Your task to perform on an android device: Open eBay Image 0: 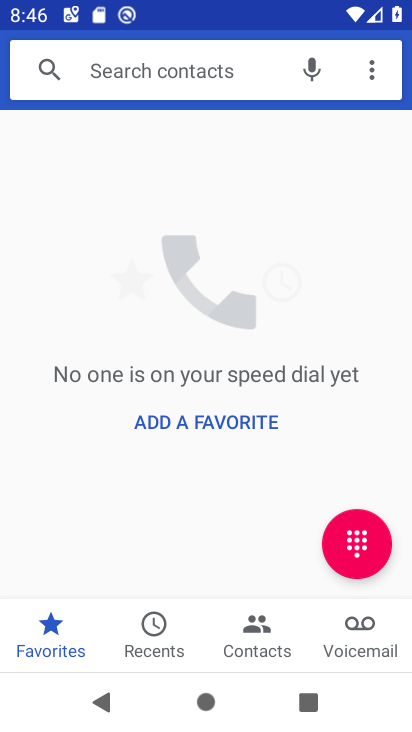
Step 0: press home button
Your task to perform on an android device: Open eBay Image 1: 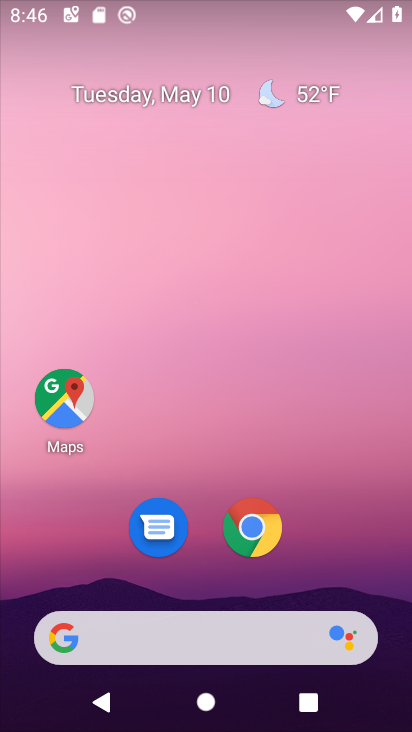
Step 1: click (245, 532)
Your task to perform on an android device: Open eBay Image 2: 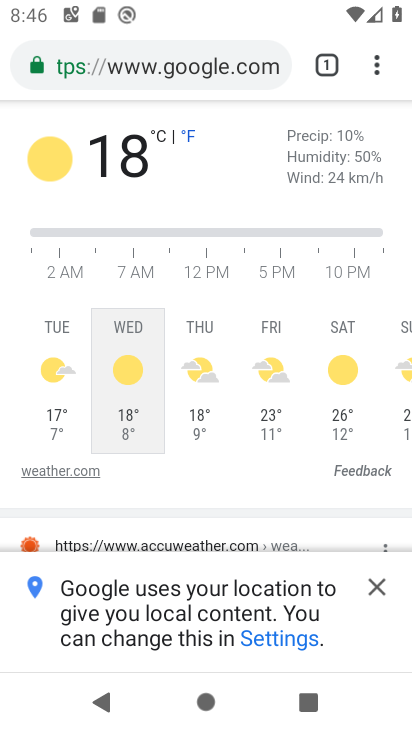
Step 2: click (333, 64)
Your task to perform on an android device: Open eBay Image 3: 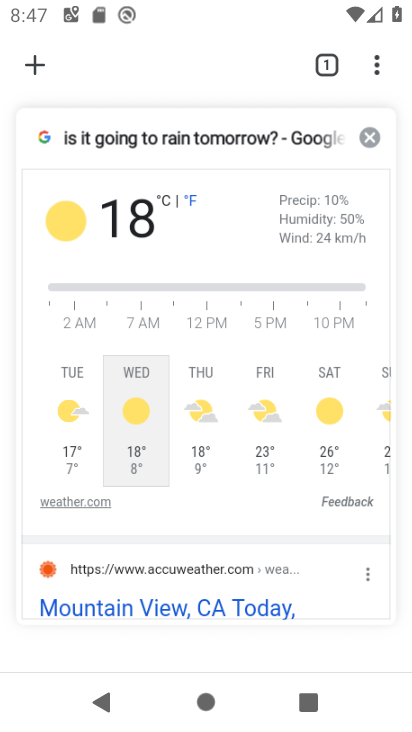
Step 3: click (39, 59)
Your task to perform on an android device: Open eBay Image 4: 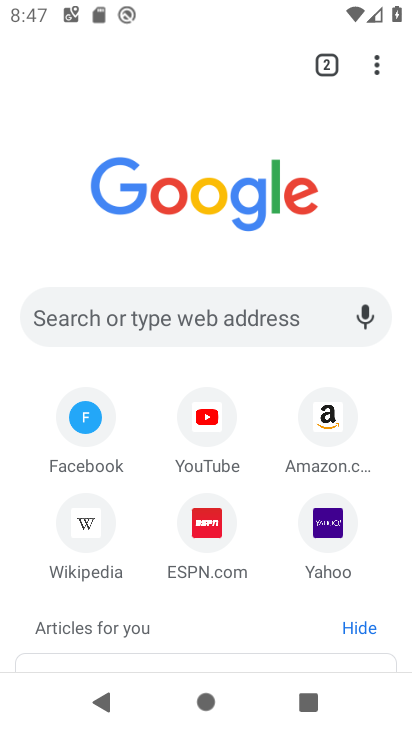
Step 4: click (173, 320)
Your task to perform on an android device: Open eBay Image 5: 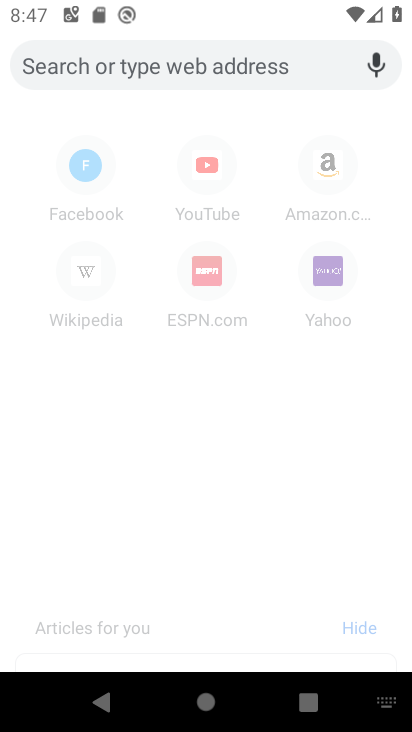
Step 5: type "ebay"
Your task to perform on an android device: Open eBay Image 6: 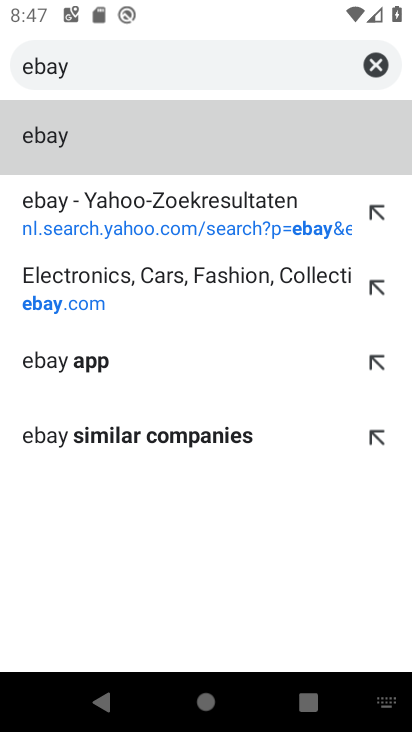
Step 6: click (113, 286)
Your task to perform on an android device: Open eBay Image 7: 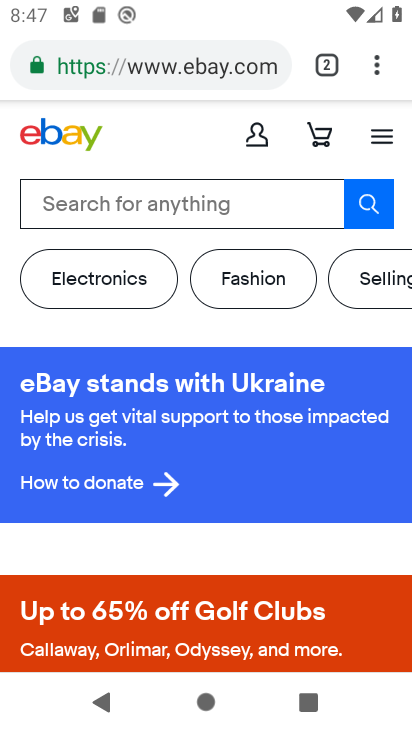
Step 7: drag from (145, 558) to (121, 220)
Your task to perform on an android device: Open eBay Image 8: 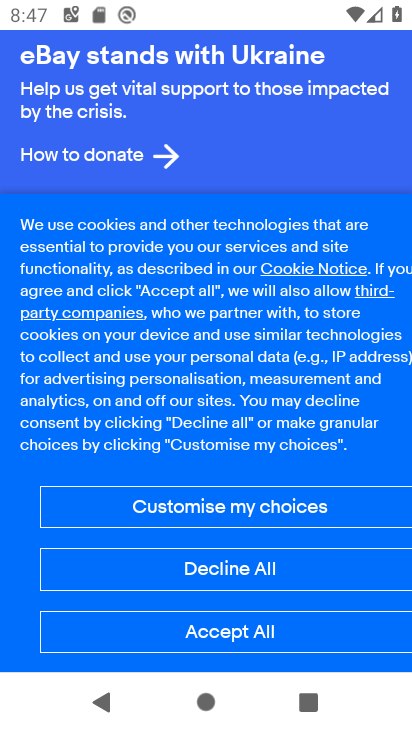
Step 8: click (248, 626)
Your task to perform on an android device: Open eBay Image 9: 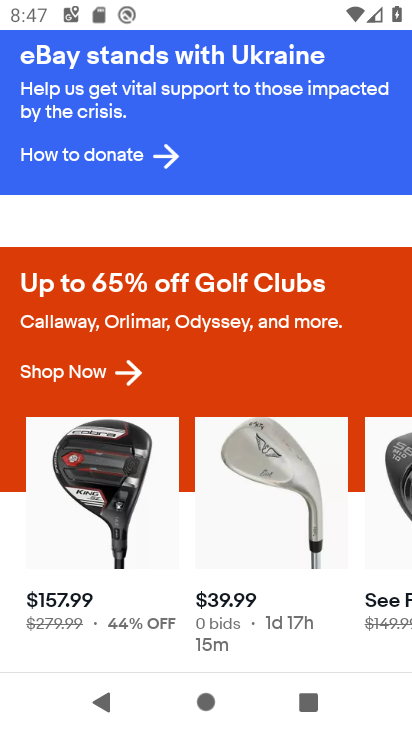
Step 9: task complete